Your task to perform on an android device: When is my next appointment? Image 0: 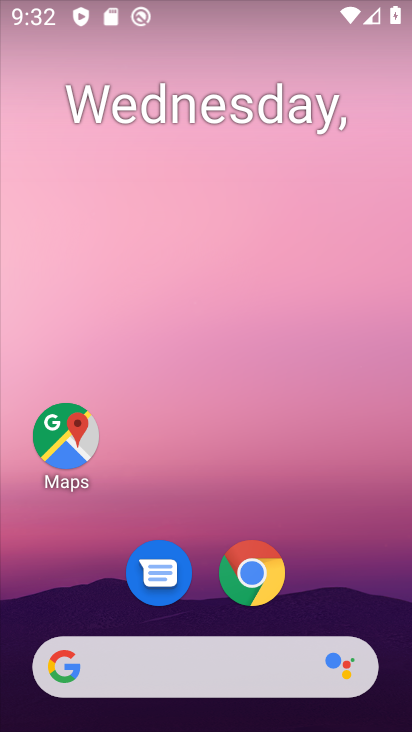
Step 0: click (254, 569)
Your task to perform on an android device: When is my next appointment? Image 1: 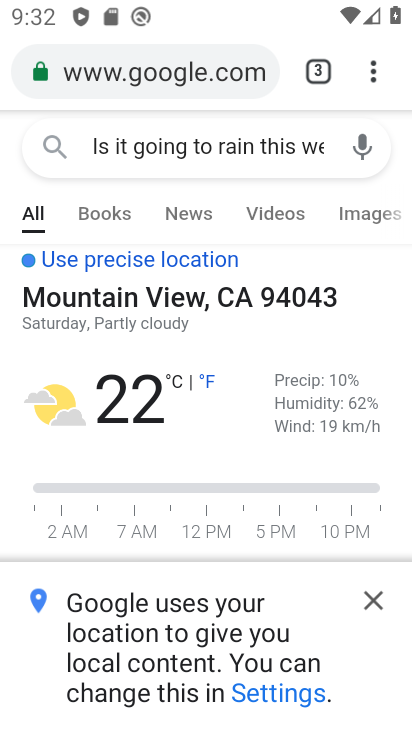
Step 1: press home button
Your task to perform on an android device: When is my next appointment? Image 2: 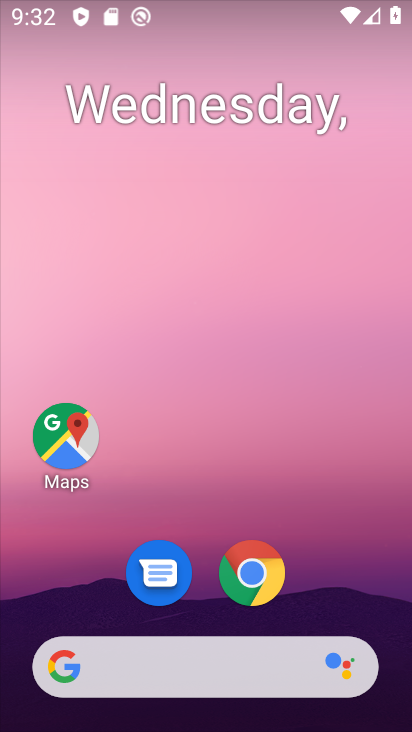
Step 2: drag from (316, 580) to (329, 263)
Your task to perform on an android device: When is my next appointment? Image 3: 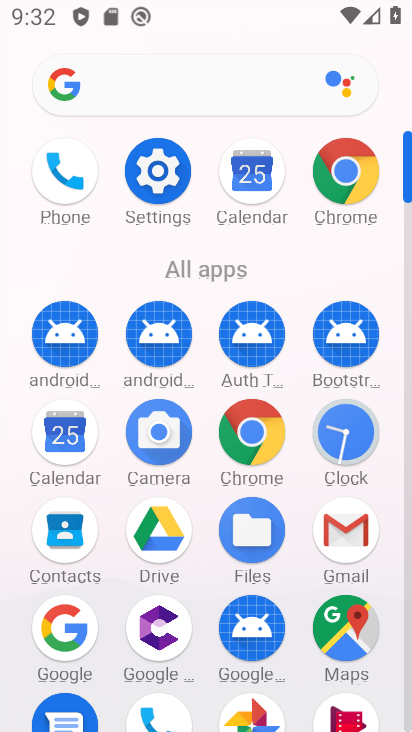
Step 3: click (237, 179)
Your task to perform on an android device: When is my next appointment? Image 4: 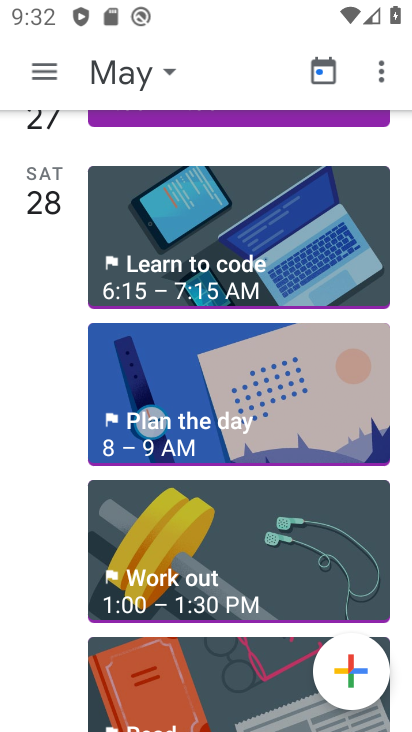
Step 4: task complete